Your task to perform on an android device: Open Maps and search for coffee Image 0: 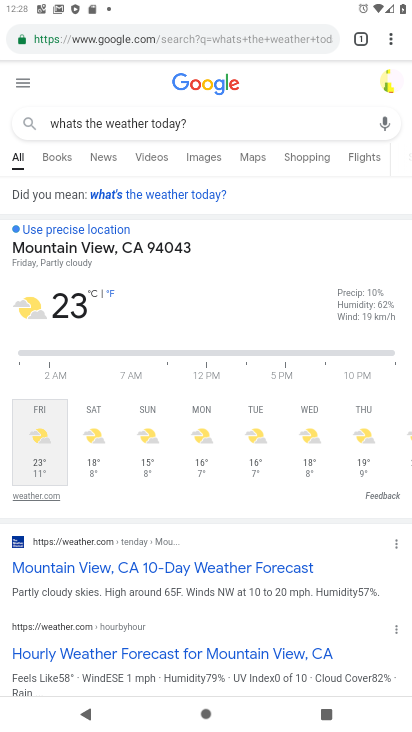
Step 0: press home button
Your task to perform on an android device: Open Maps and search for coffee Image 1: 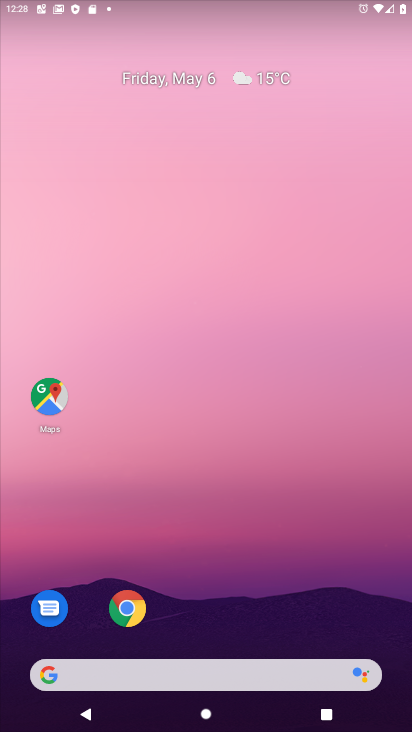
Step 1: click (58, 403)
Your task to perform on an android device: Open Maps and search for coffee Image 2: 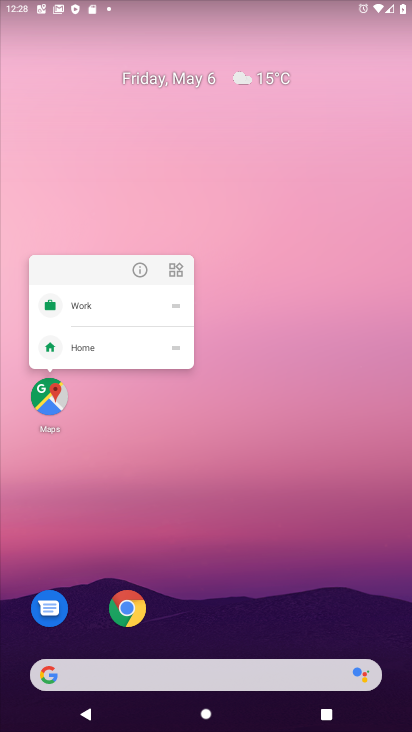
Step 2: click (54, 389)
Your task to perform on an android device: Open Maps and search for coffee Image 3: 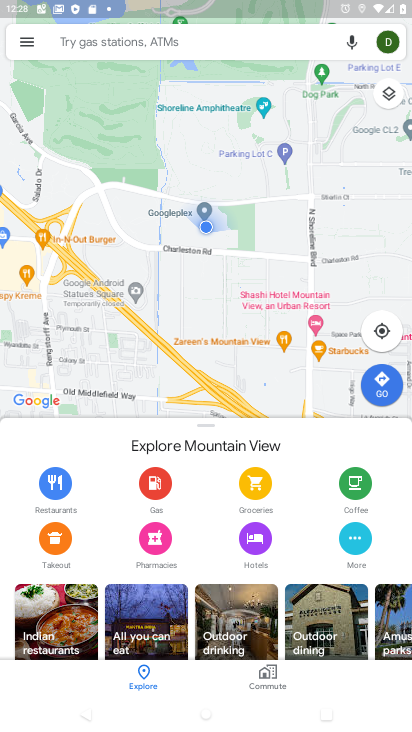
Step 3: click (229, 48)
Your task to perform on an android device: Open Maps and search for coffee Image 4: 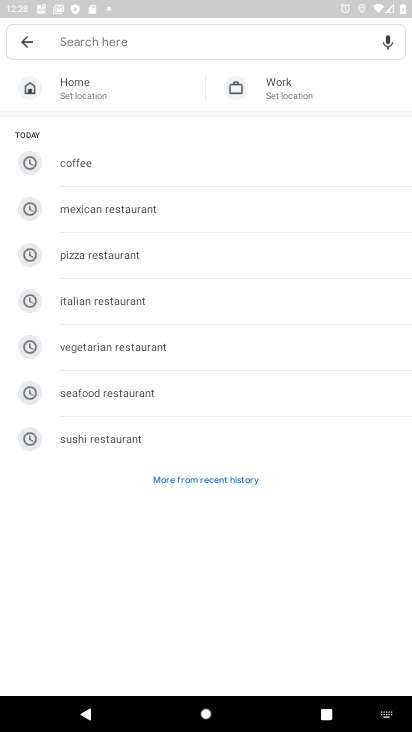
Step 4: click (107, 164)
Your task to perform on an android device: Open Maps and search for coffee Image 5: 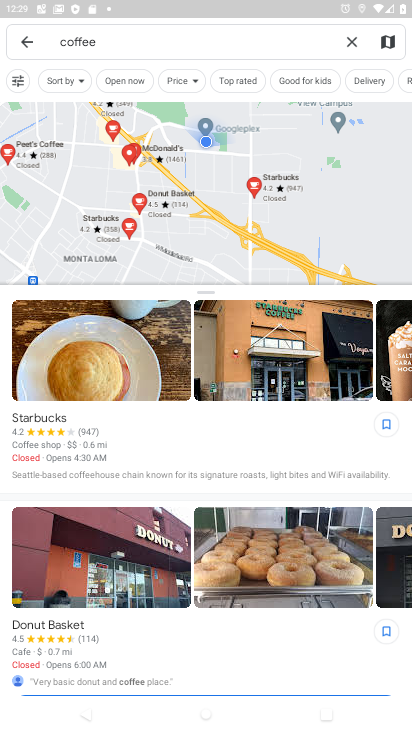
Step 5: task complete